Your task to perform on an android device: Go to accessibility settings Image 0: 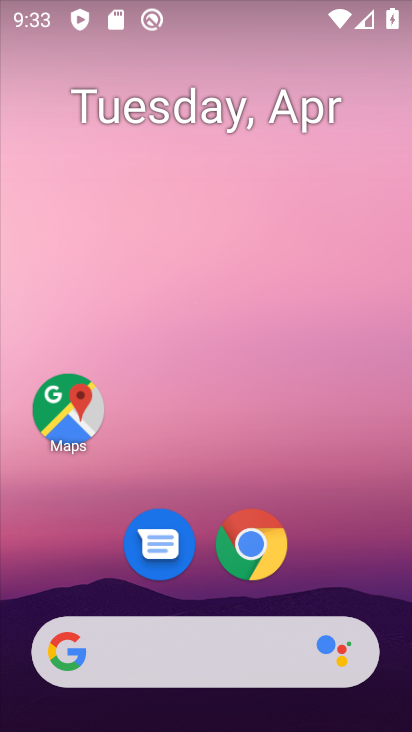
Step 0: click (360, 157)
Your task to perform on an android device: Go to accessibility settings Image 1: 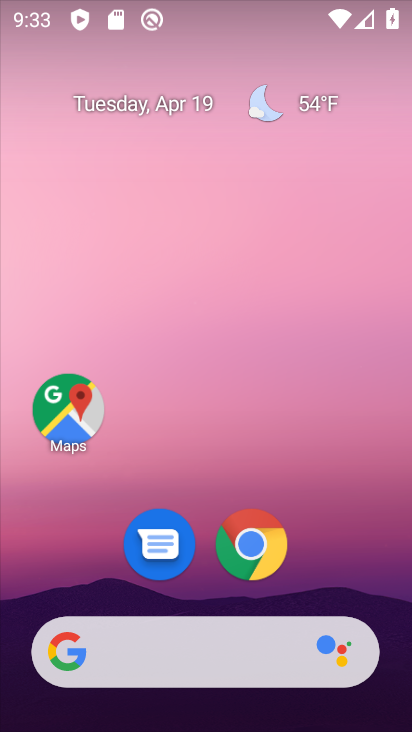
Step 1: drag from (310, 578) to (346, 236)
Your task to perform on an android device: Go to accessibility settings Image 2: 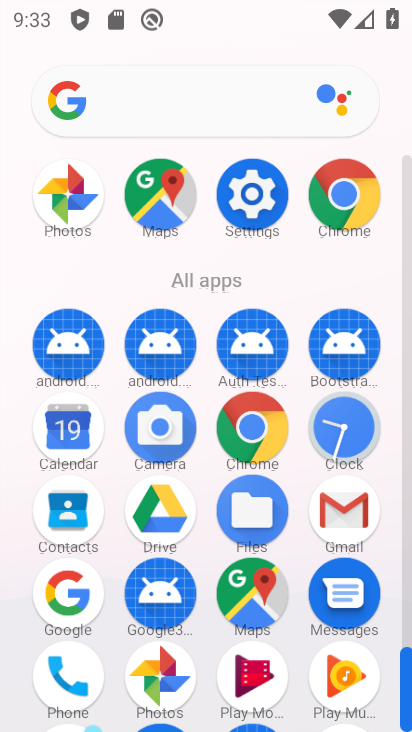
Step 2: click (266, 202)
Your task to perform on an android device: Go to accessibility settings Image 3: 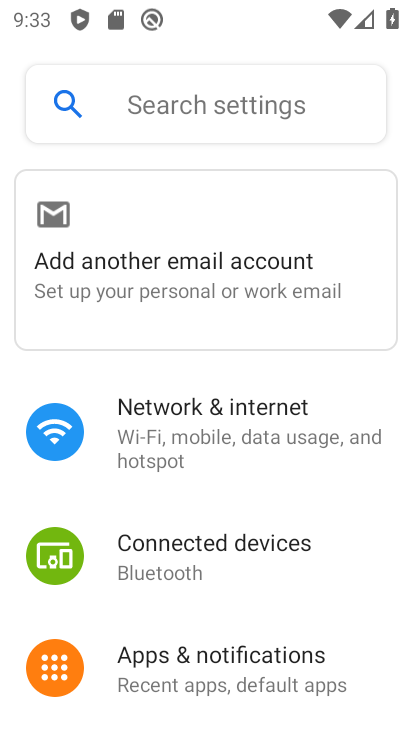
Step 3: drag from (240, 615) to (301, 174)
Your task to perform on an android device: Go to accessibility settings Image 4: 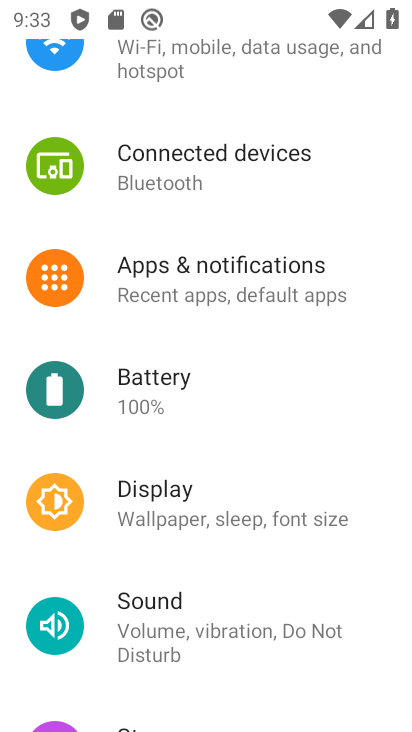
Step 4: drag from (269, 686) to (302, 139)
Your task to perform on an android device: Go to accessibility settings Image 5: 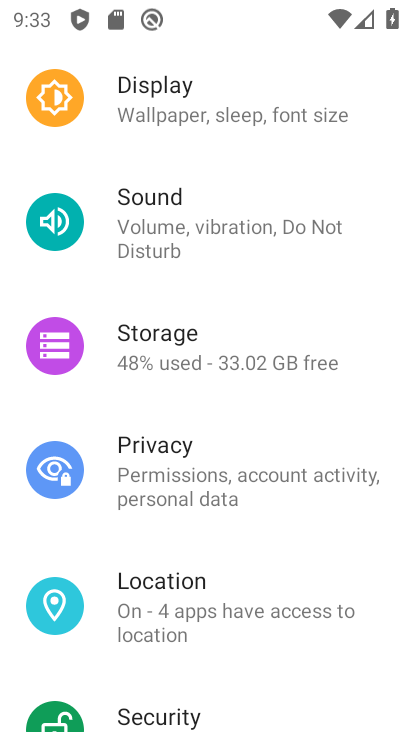
Step 5: drag from (226, 615) to (236, 237)
Your task to perform on an android device: Go to accessibility settings Image 6: 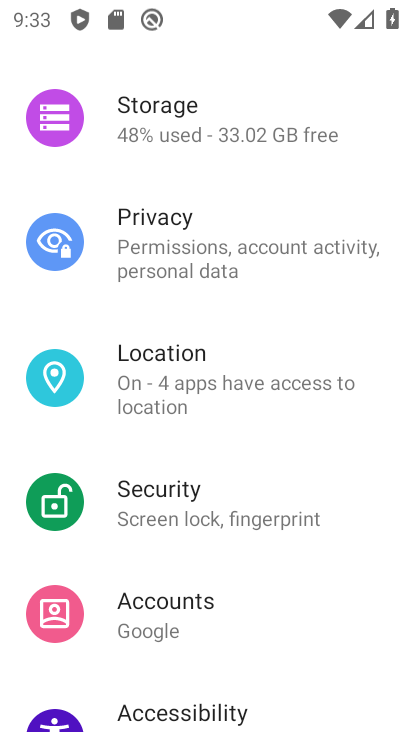
Step 6: drag from (263, 683) to (288, 371)
Your task to perform on an android device: Go to accessibility settings Image 7: 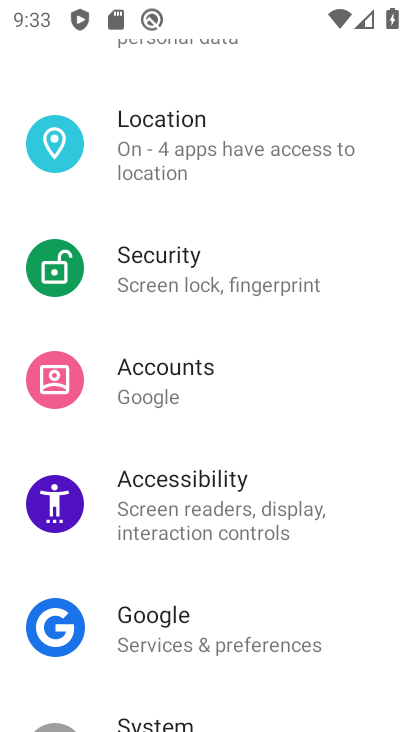
Step 7: click (249, 525)
Your task to perform on an android device: Go to accessibility settings Image 8: 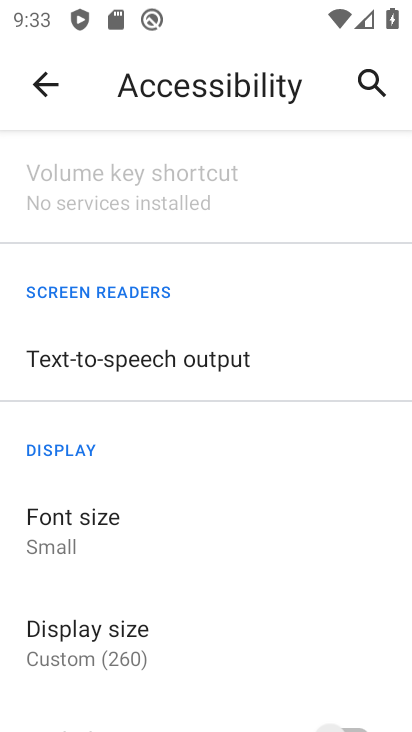
Step 8: task complete